Your task to perform on an android device: Find coffee shops on Maps Image 0: 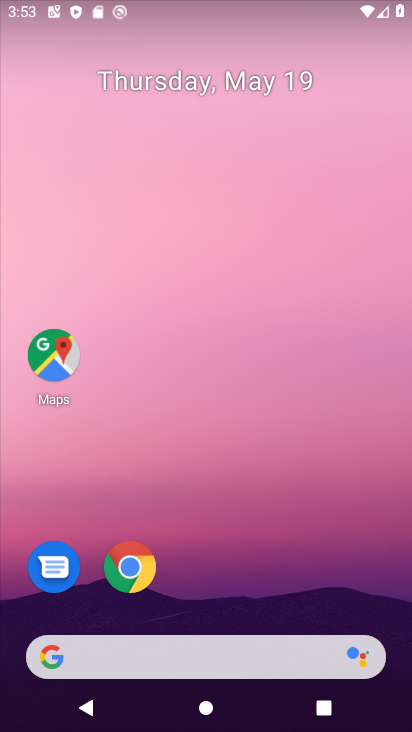
Step 0: drag from (233, 607) to (221, 0)
Your task to perform on an android device: Find coffee shops on Maps Image 1: 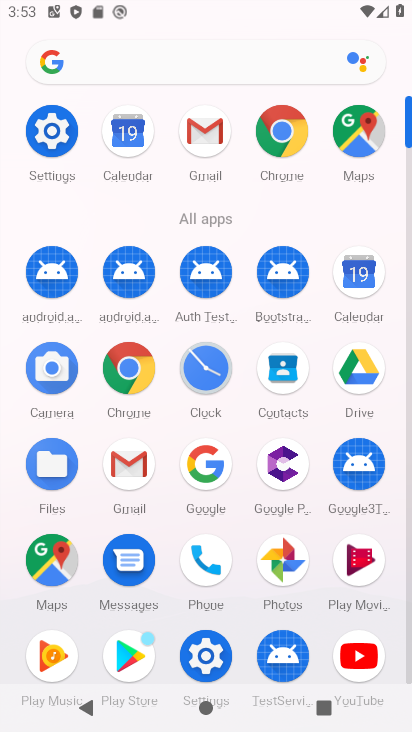
Step 1: click (51, 556)
Your task to perform on an android device: Find coffee shops on Maps Image 2: 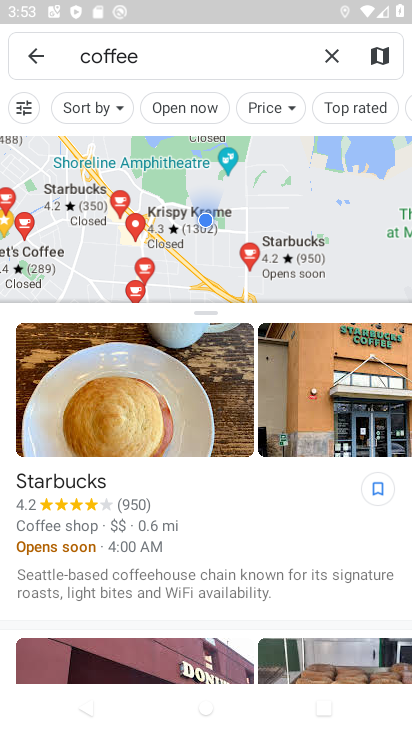
Step 2: click (332, 59)
Your task to perform on an android device: Find coffee shops on Maps Image 3: 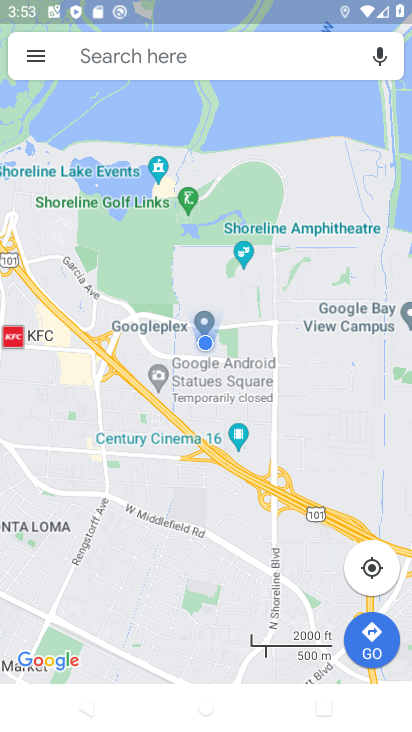
Step 3: click (182, 64)
Your task to perform on an android device: Find coffee shops on Maps Image 4: 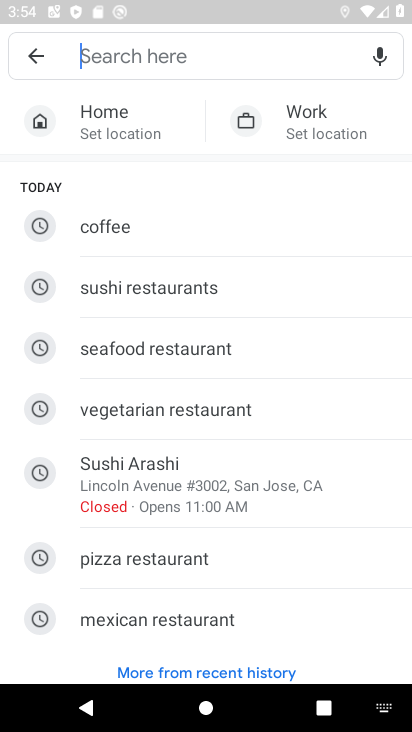
Step 4: type "coffee shops"
Your task to perform on an android device: Find coffee shops on Maps Image 5: 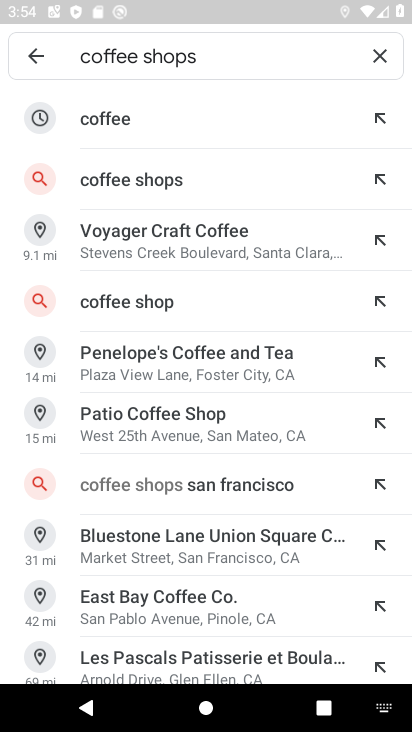
Step 5: click (149, 184)
Your task to perform on an android device: Find coffee shops on Maps Image 6: 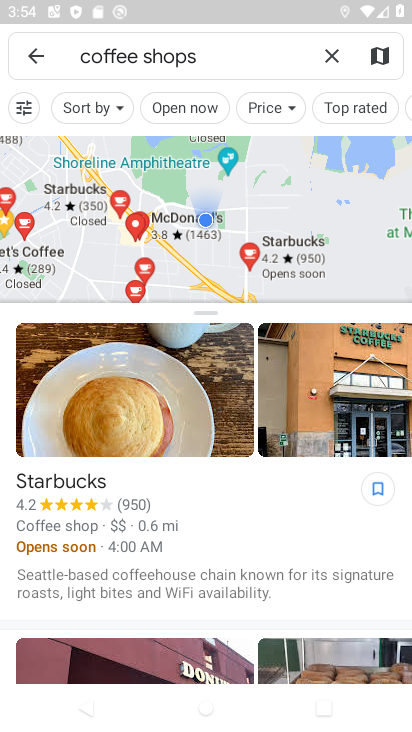
Step 6: task complete